Your task to perform on an android device: remove spam from my inbox in the gmail app Image 0: 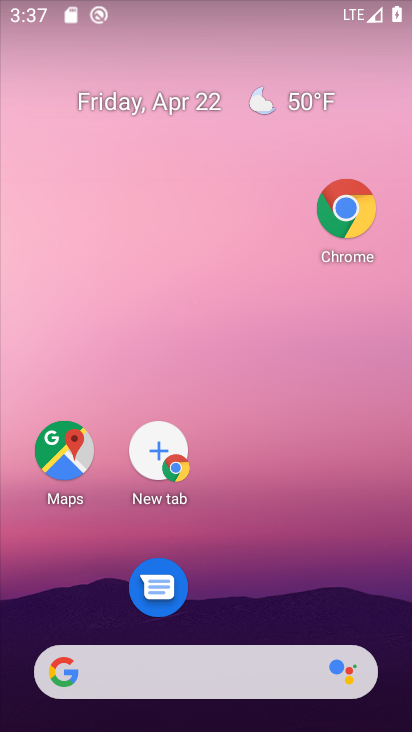
Step 0: drag from (240, 577) to (227, 85)
Your task to perform on an android device: remove spam from my inbox in the gmail app Image 1: 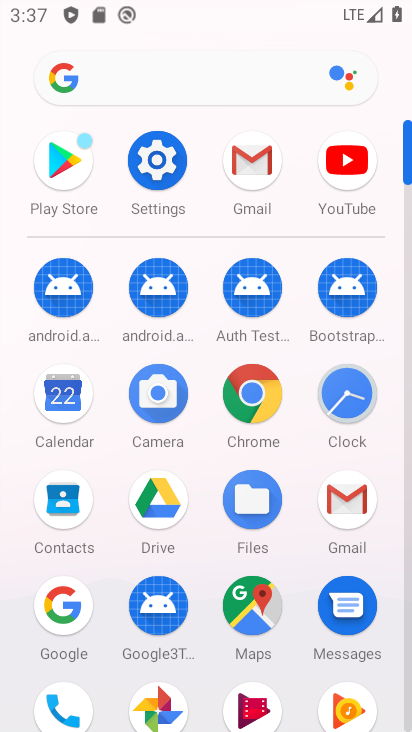
Step 1: click (249, 161)
Your task to perform on an android device: remove spam from my inbox in the gmail app Image 2: 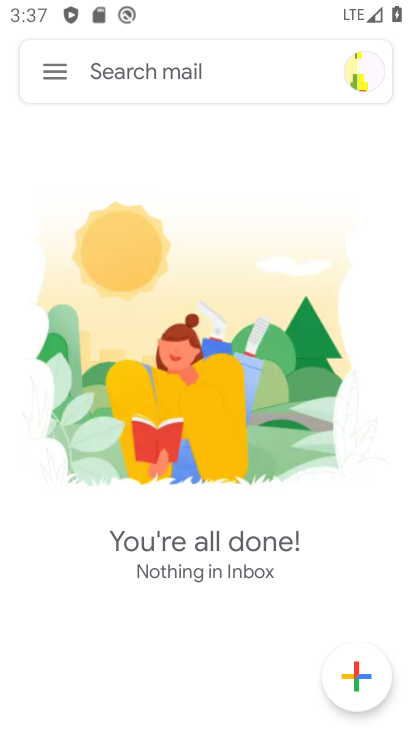
Step 2: click (35, 80)
Your task to perform on an android device: remove spam from my inbox in the gmail app Image 3: 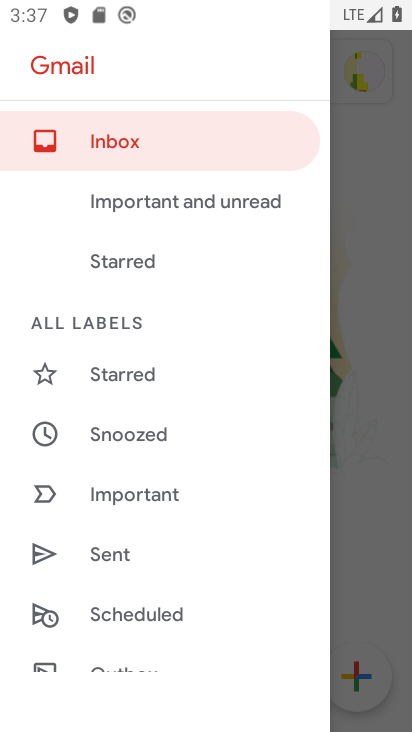
Step 3: drag from (143, 554) to (136, 217)
Your task to perform on an android device: remove spam from my inbox in the gmail app Image 4: 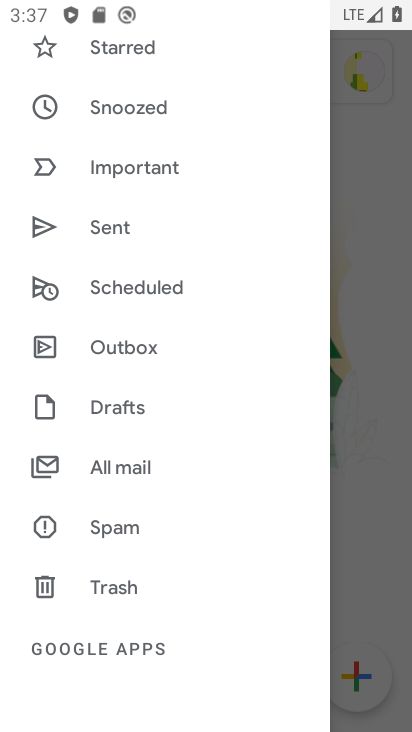
Step 4: click (169, 540)
Your task to perform on an android device: remove spam from my inbox in the gmail app Image 5: 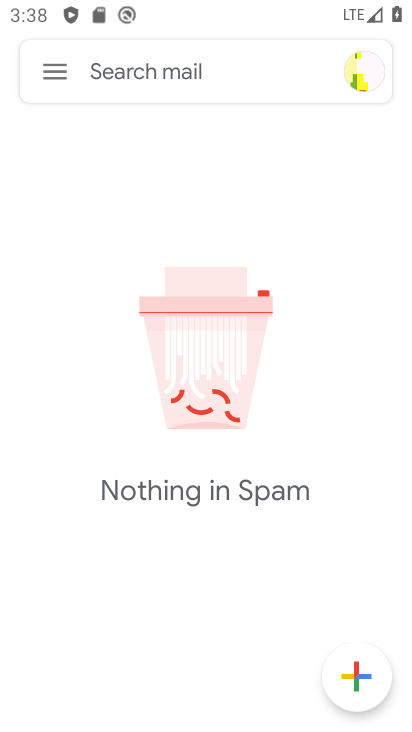
Step 5: task complete